Your task to perform on an android device: change the clock display to digital Image 0: 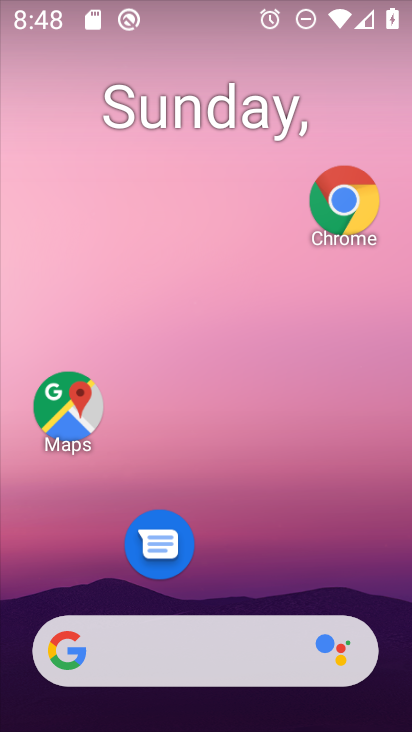
Step 0: drag from (261, 566) to (270, 11)
Your task to perform on an android device: change the clock display to digital Image 1: 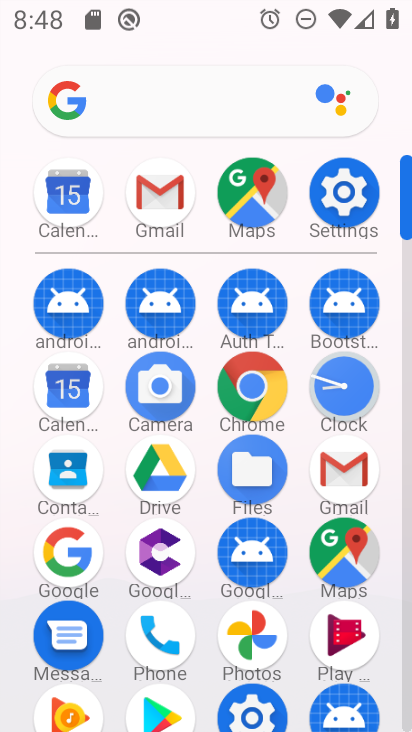
Step 1: click (350, 395)
Your task to perform on an android device: change the clock display to digital Image 2: 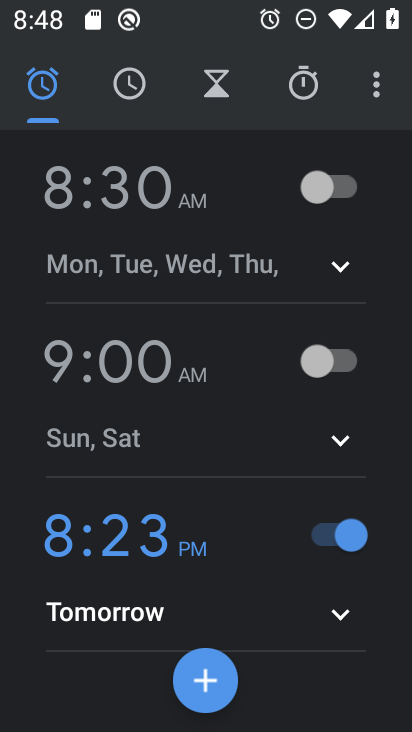
Step 2: click (372, 88)
Your task to perform on an android device: change the clock display to digital Image 3: 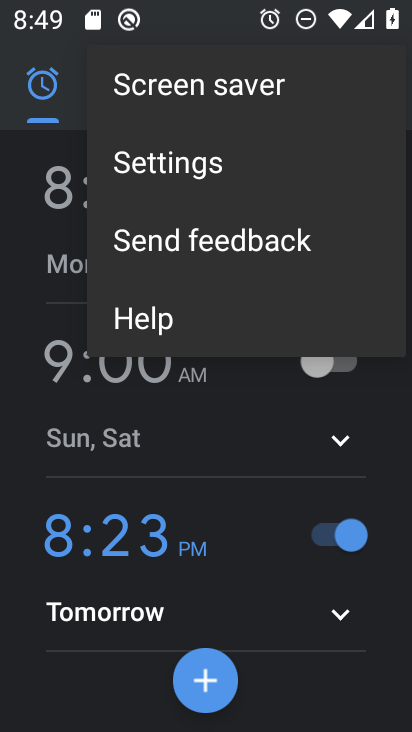
Step 3: click (153, 166)
Your task to perform on an android device: change the clock display to digital Image 4: 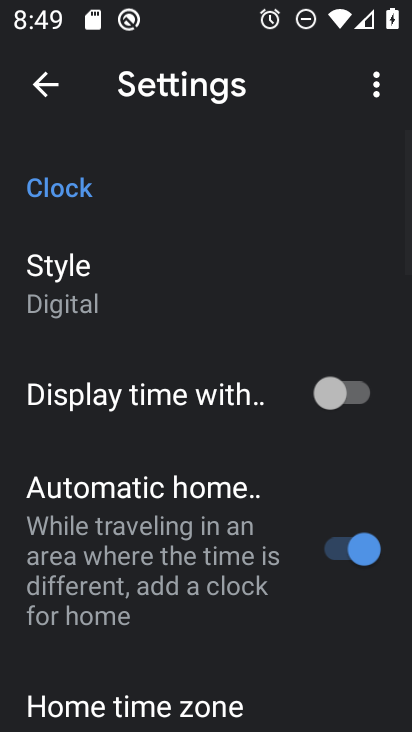
Step 4: click (56, 269)
Your task to perform on an android device: change the clock display to digital Image 5: 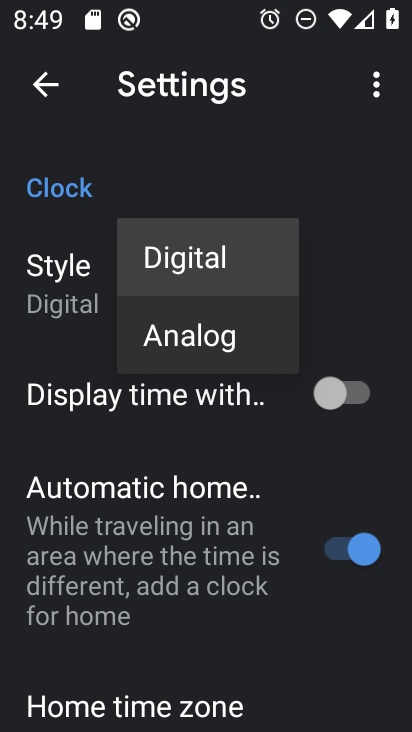
Step 5: click (168, 248)
Your task to perform on an android device: change the clock display to digital Image 6: 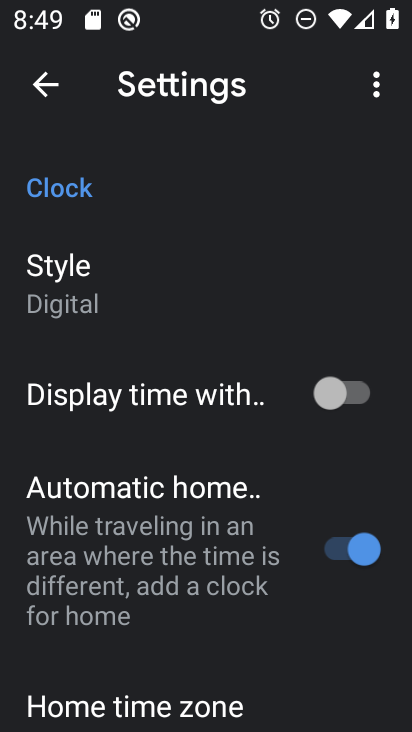
Step 6: task complete